Your task to perform on an android device: Search for hotels in San Francisco Image 0: 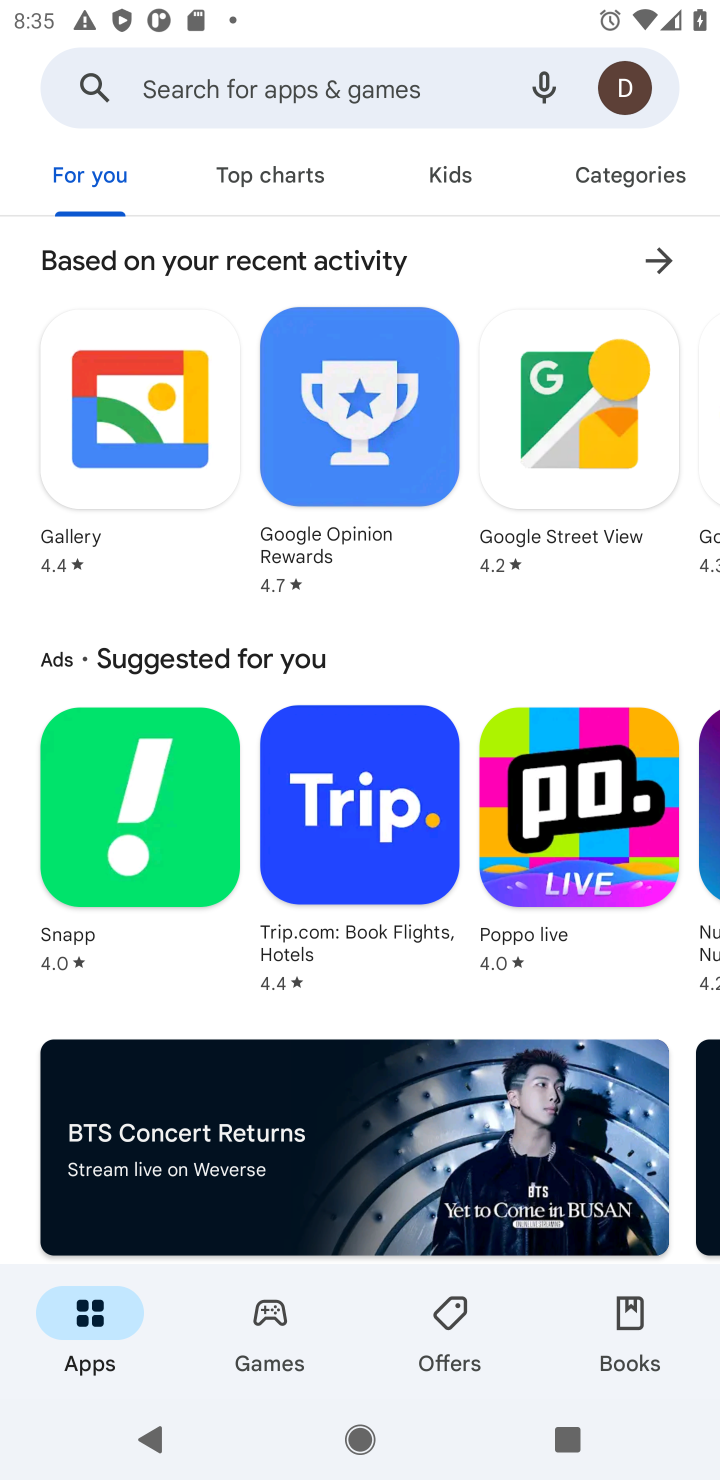
Step 0: press home button
Your task to perform on an android device: Search for hotels in San Francisco Image 1: 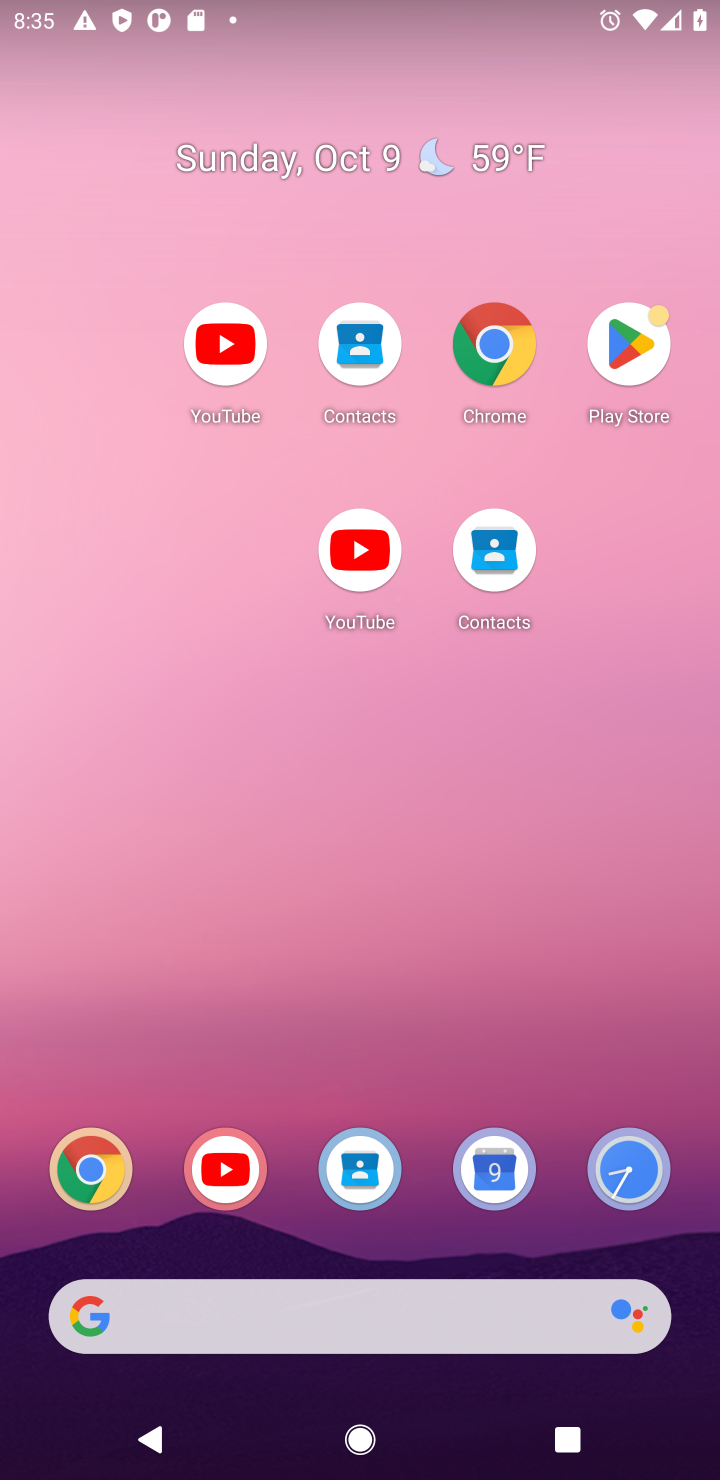
Step 1: drag from (298, 1251) to (278, 66)
Your task to perform on an android device: Search for hotels in San Francisco Image 2: 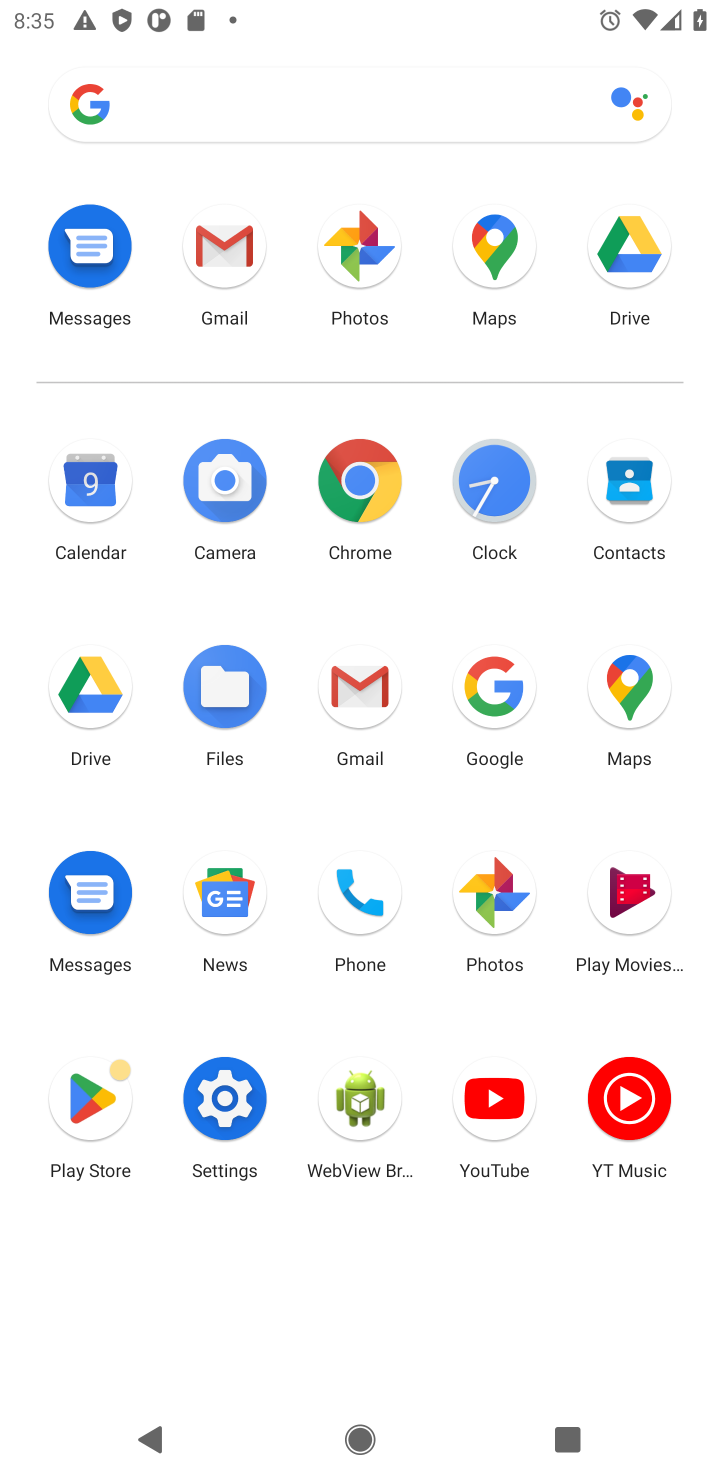
Step 2: click (377, 485)
Your task to perform on an android device: Search for hotels in San Francisco Image 3: 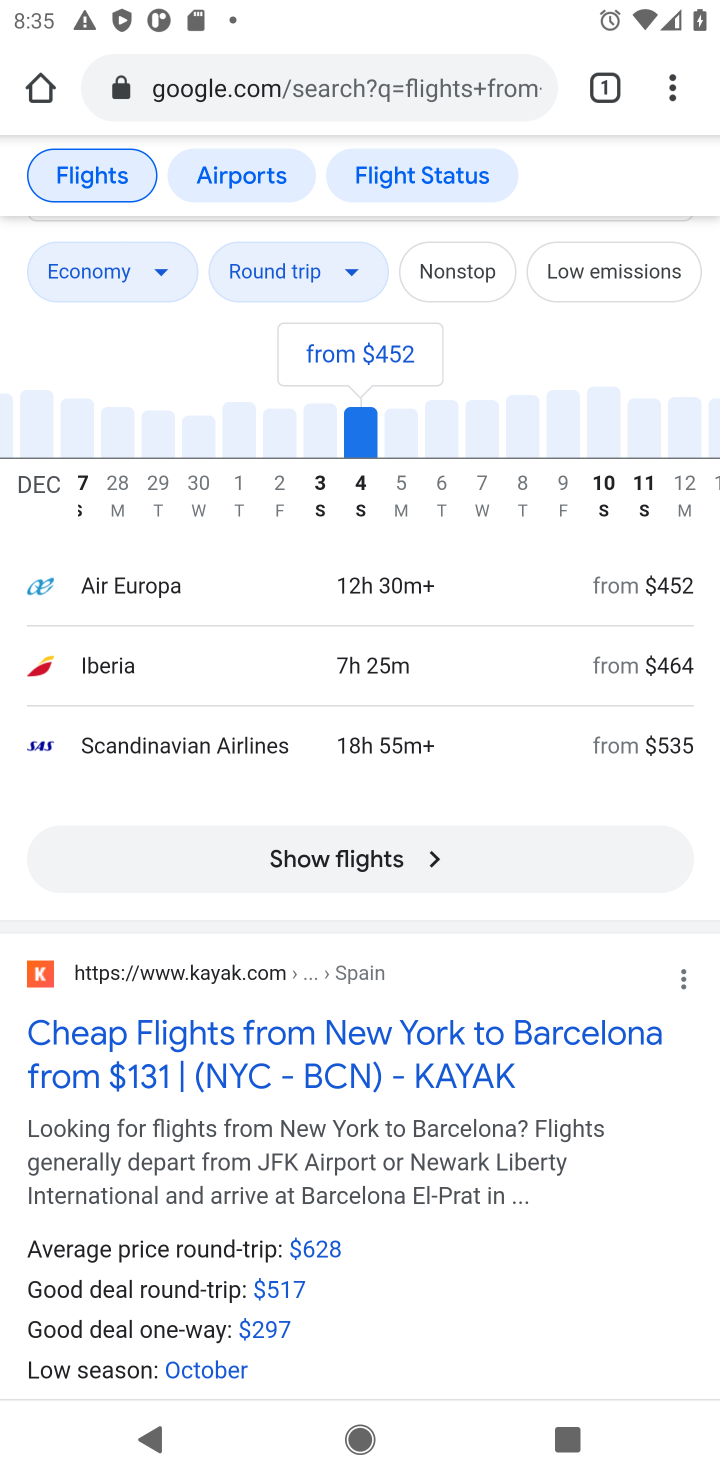
Step 3: click (428, 73)
Your task to perform on an android device: Search for hotels in San Francisco Image 4: 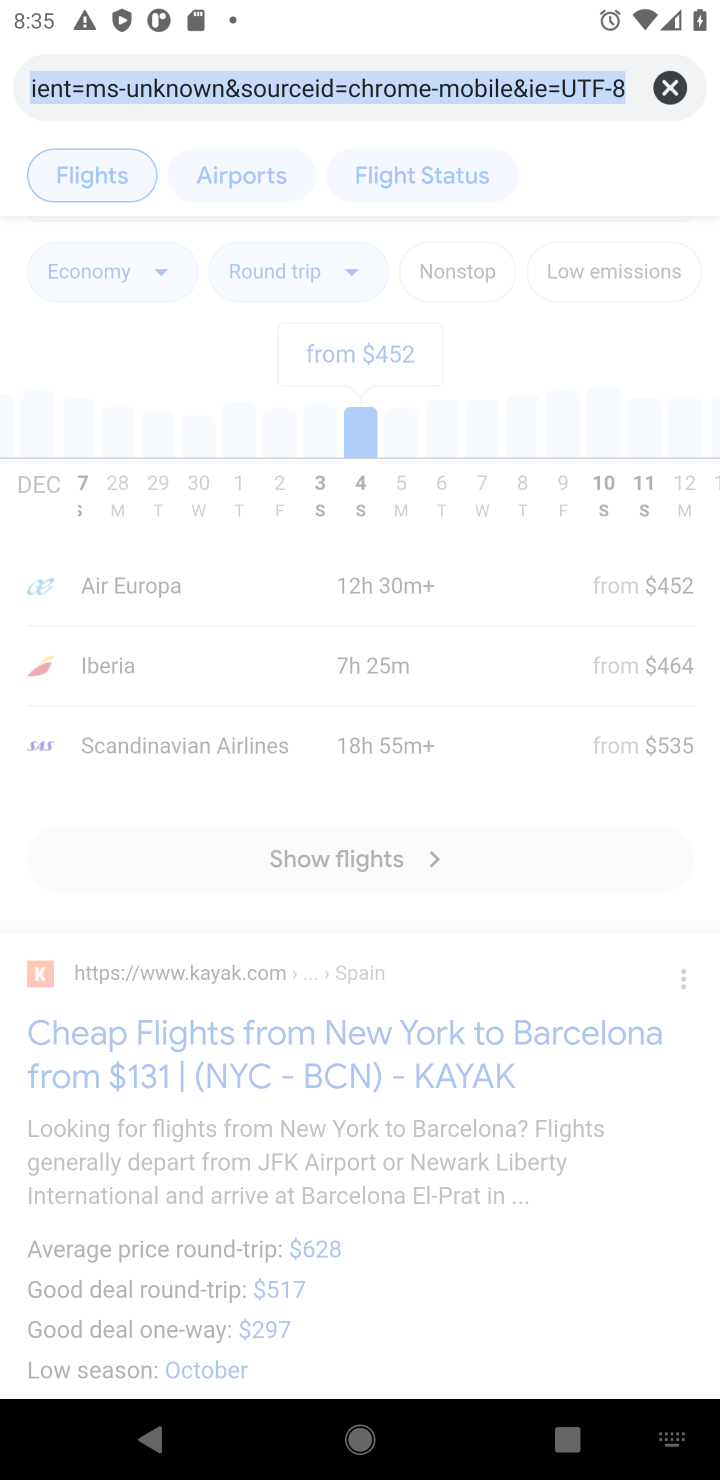
Step 4: type "hotel in San Francisco"
Your task to perform on an android device: Search for hotels in San Francisco Image 5: 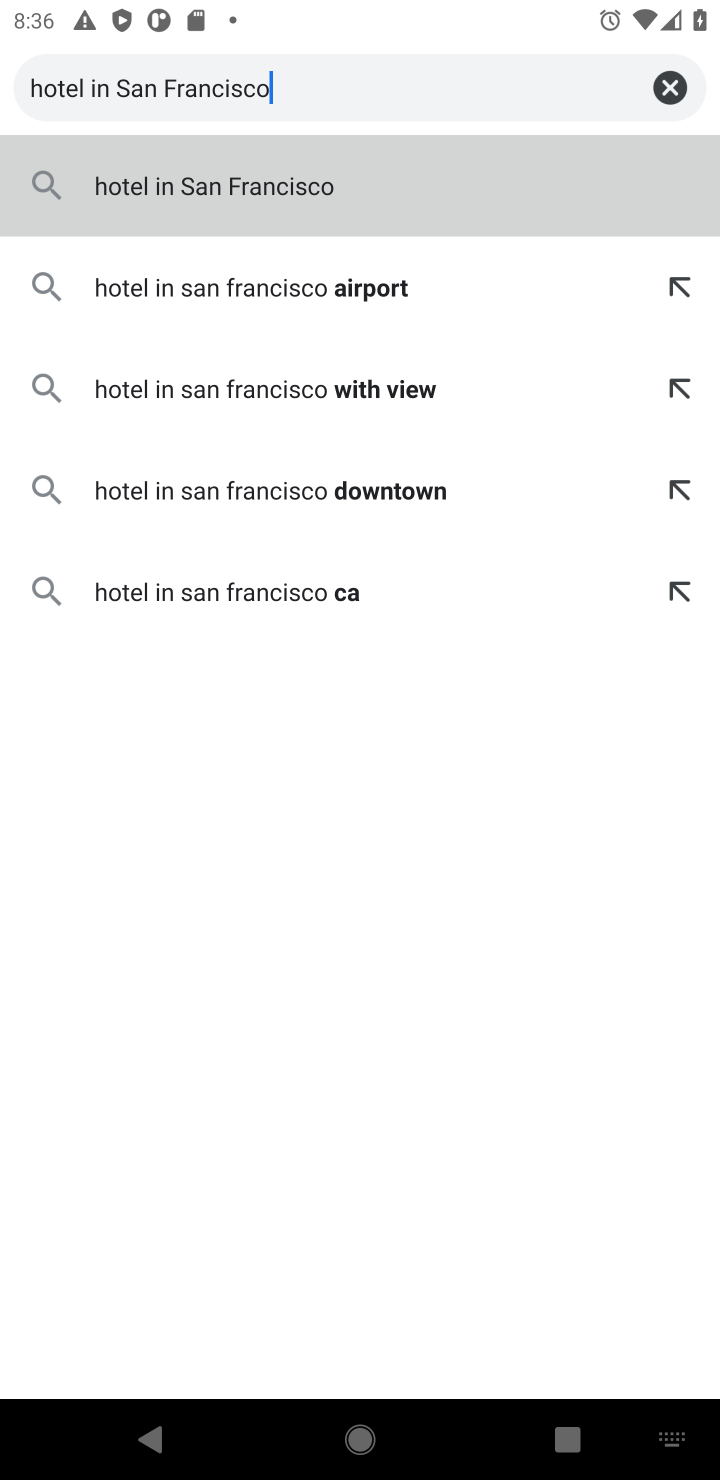
Step 5: press enter
Your task to perform on an android device: Search for hotels in San Francisco Image 6: 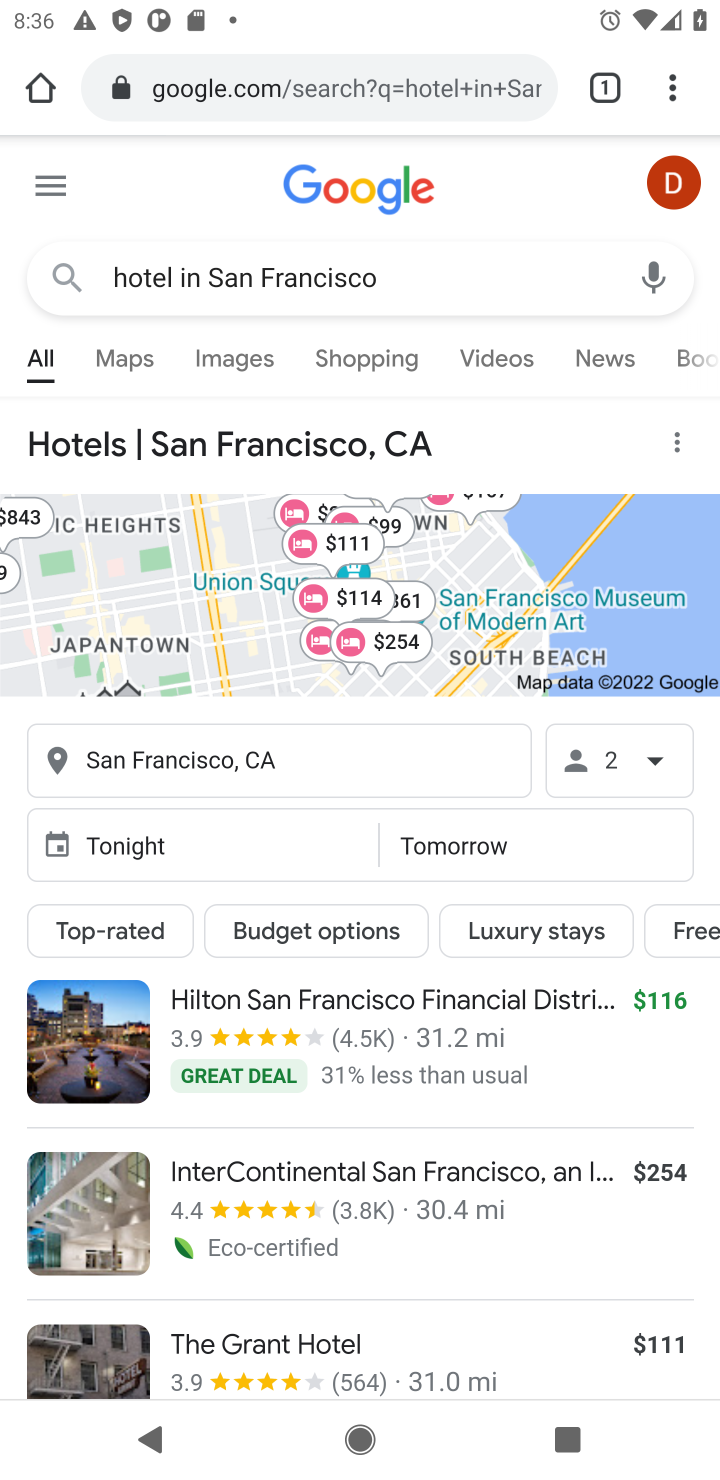
Step 6: task complete